Your task to perform on an android device: Go to Reddit.com Image 0: 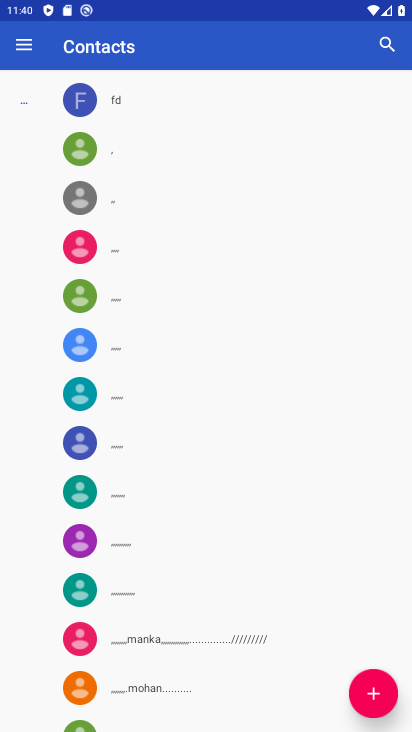
Step 0: press home button
Your task to perform on an android device: Go to Reddit.com Image 1: 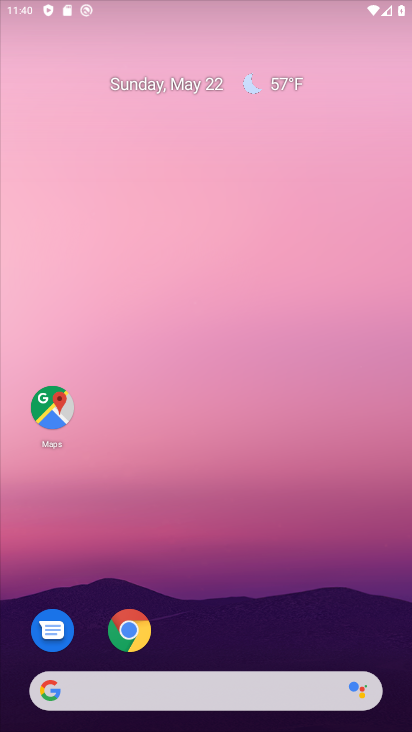
Step 1: drag from (289, 551) to (239, 727)
Your task to perform on an android device: Go to Reddit.com Image 2: 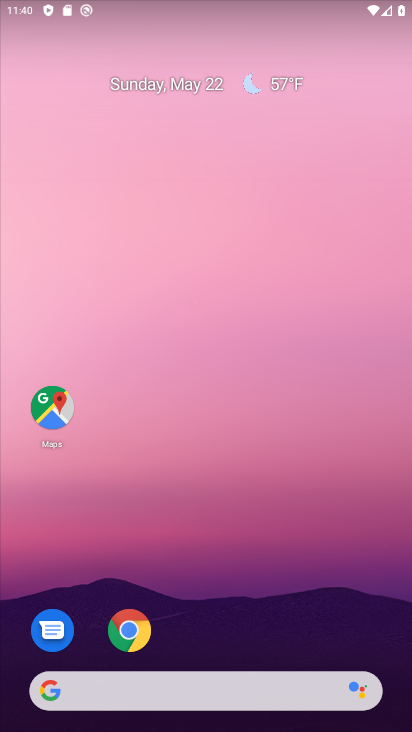
Step 2: click (138, 633)
Your task to perform on an android device: Go to Reddit.com Image 3: 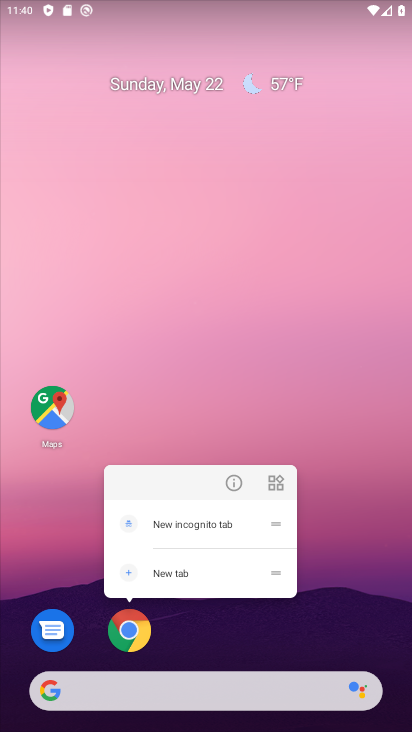
Step 3: click (129, 636)
Your task to perform on an android device: Go to Reddit.com Image 4: 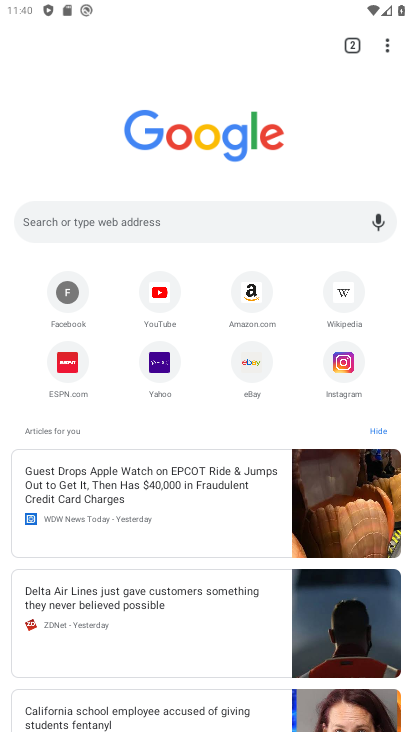
Step 4: click (194, 224)
Your task to perform on an android device: Go to Reddit.com Image 5: 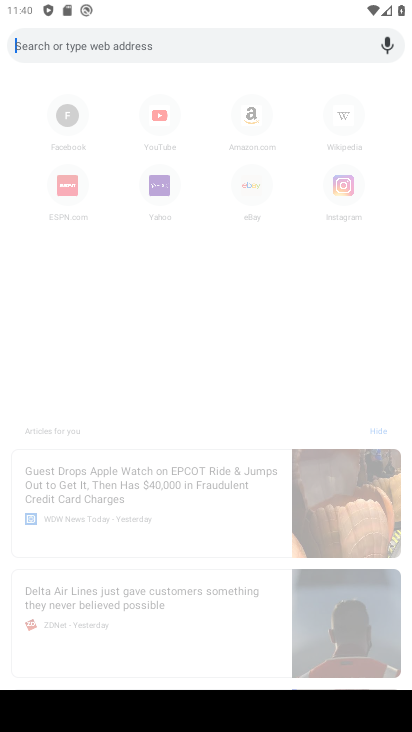
Step 5: type "Reddit.com"
Your task to perform on an android device: Go to Reddit.com Image 6: 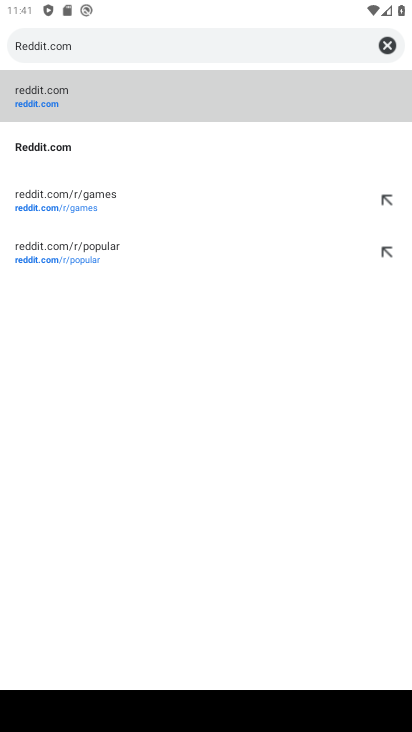
Step 6: click (89, 99)
Your task to perform on an android device: Go to Reddit.com Image 7: 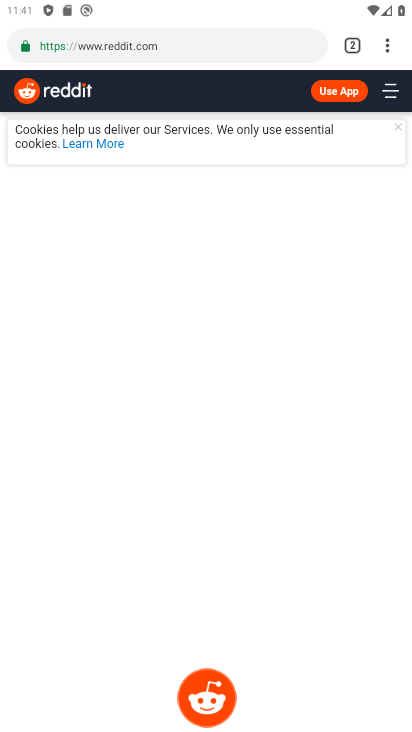
Step 7: task complete